Your task to perform on an android device: turn off location Image 0: 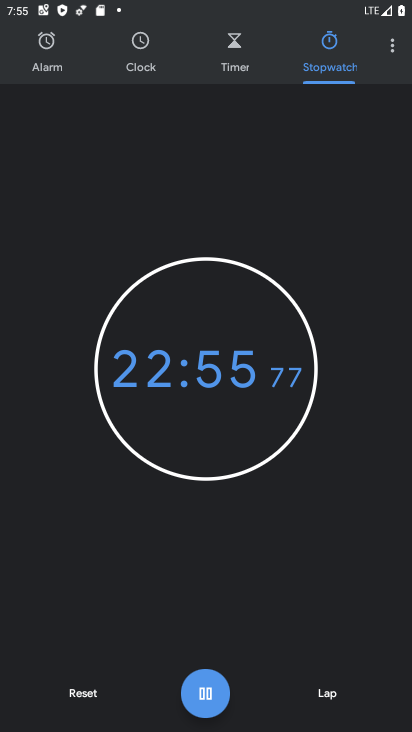
Step 0: press home button
Your task to perform on an android device: turn off location Image 1: 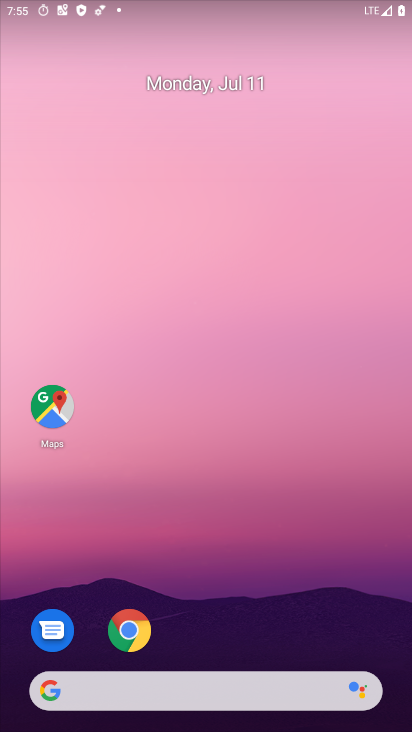
Step 1: drag from (190, 692) to (314, 243)
Your task to perform on an android device: turn off location Image 2: 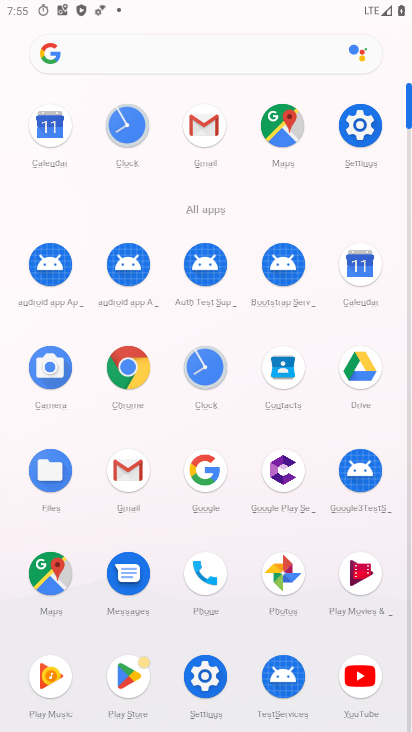
Step 2: click (369, 123)
Your task to perform on an android device: turn off location Image 3: 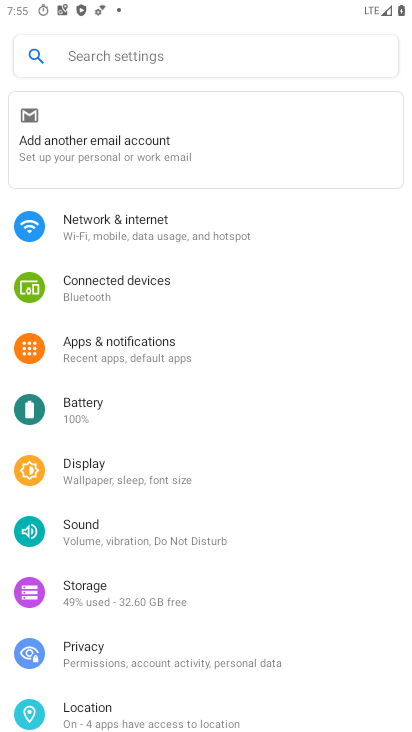
Step 3: click (60, 711)
Your task to perform on an android device: turn off location Image 4: 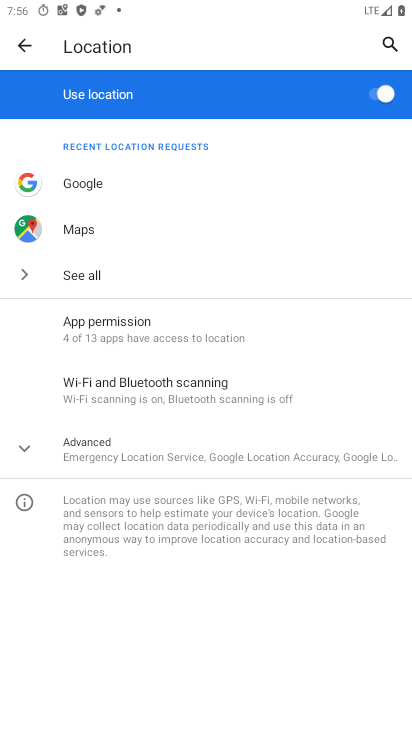
Step 4: click (376, 95)
Your task to perform on an android device: turn off location Image 5: 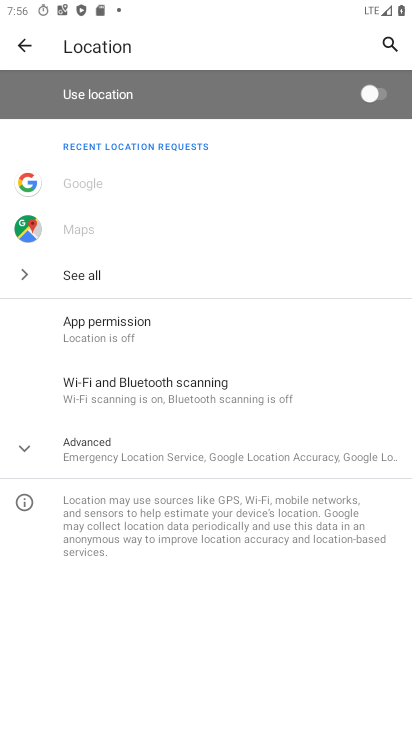
Step 5: task complete